Your task to perform on an android device: Find coffee shops on Maps Image 0: 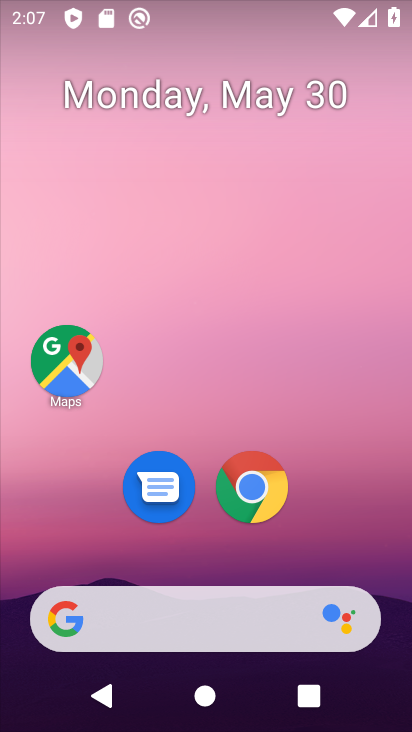
Step 0: click (76, 369)
Your task to perform on an android device: Find coffee shops on Maps Image 1: 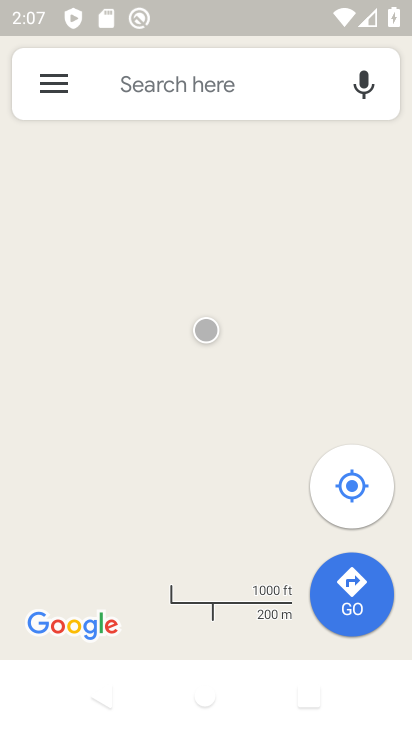
Step 1: click (194, 93)
Your task to perform on an android device: Find coffee shops on Maps Image 2: 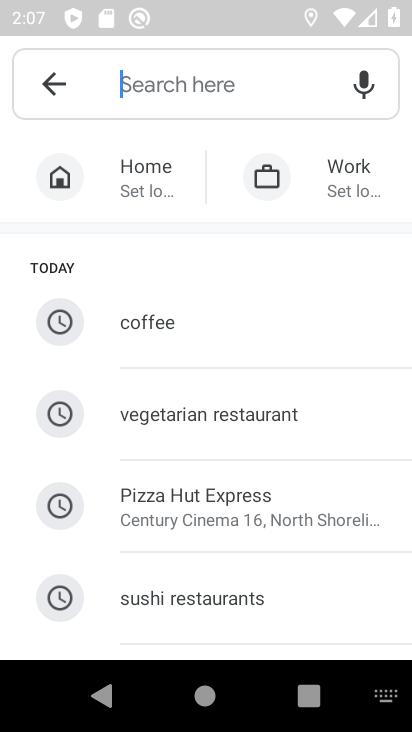
Step 2: type "coffee shops"
Your task to perform on an android device: Find coffee shops on Maps Image 3: 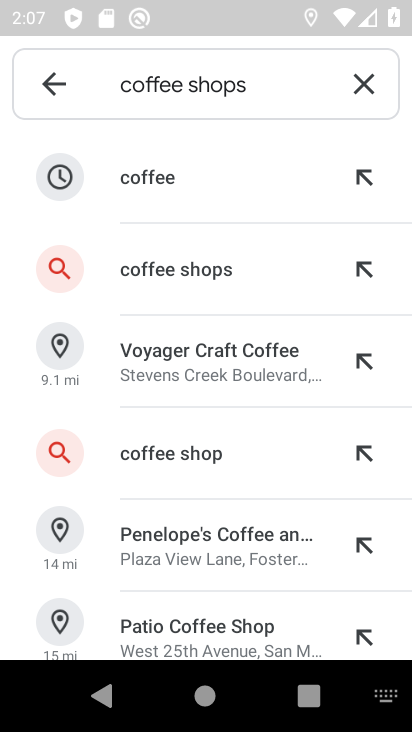
Step 3: click (183, 286)
Your task to perform on an android device: Find coffee shops on Maps Image 4: 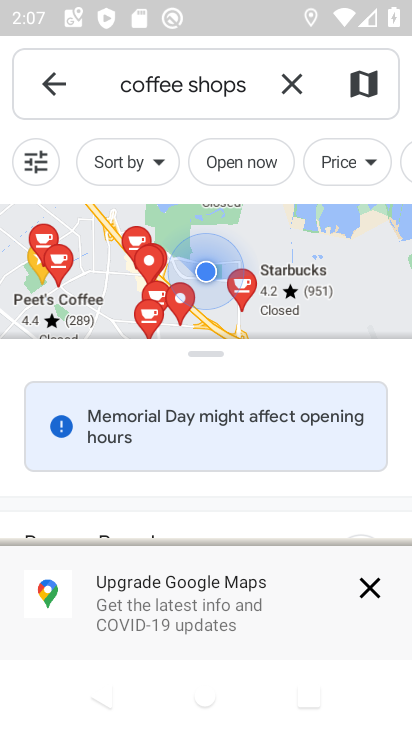
Step 4: click (370, 596)
Your task to perform on an android device: Find coffee shops on Maps Image 5: 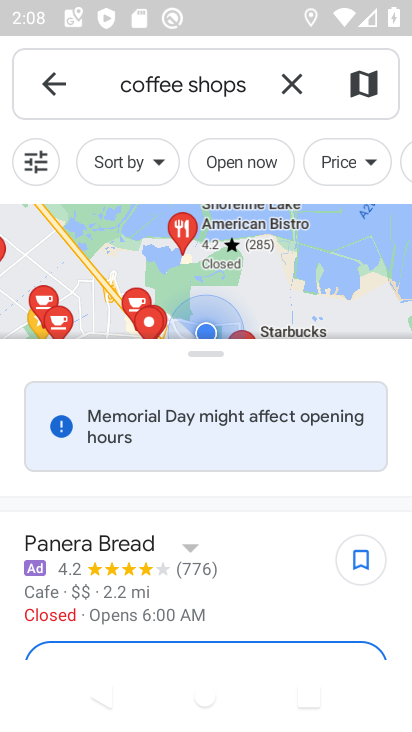
Step 5: task complete